Your task to perform on an android device: Open CNN.com Image 0: 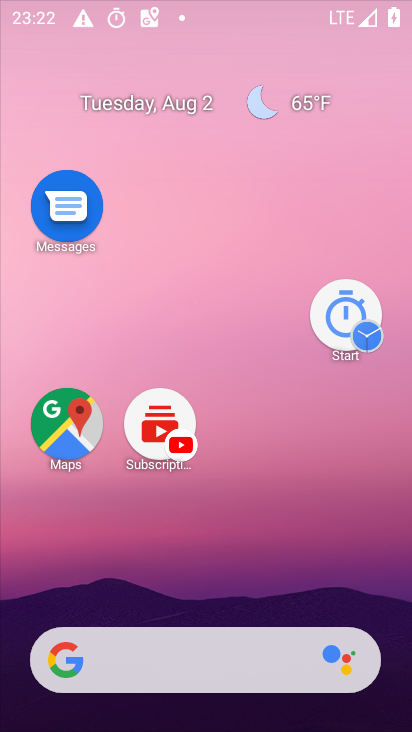
Step 0: drag from (219, 628) to (187, 250)
Your task to perform on an android device: Open CNN.com Image 1: 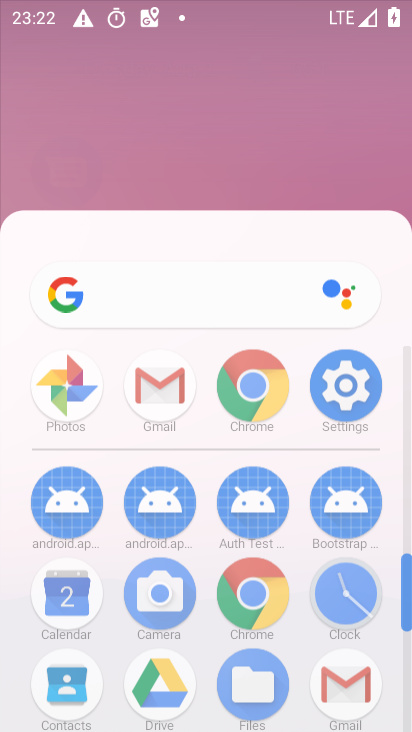
Step 1: drag from (227, 564) to (227, 304)
Your task to perform on an android device: Open CNN.com Image 2: 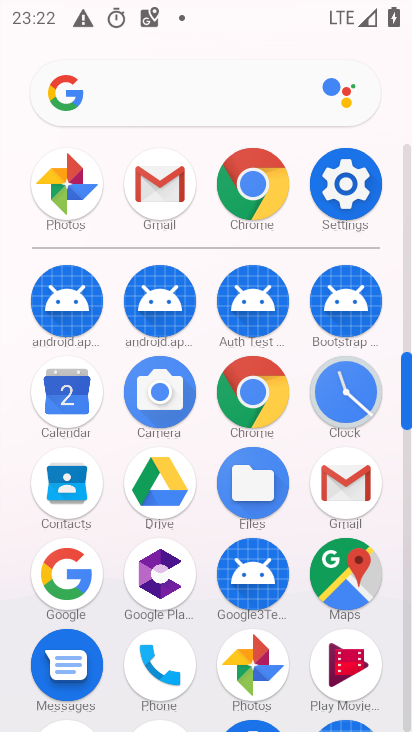
Step 2: drag from (245, 501) to (234, 370)
Your task to perform on an android device: Open CNN.com Image 3: 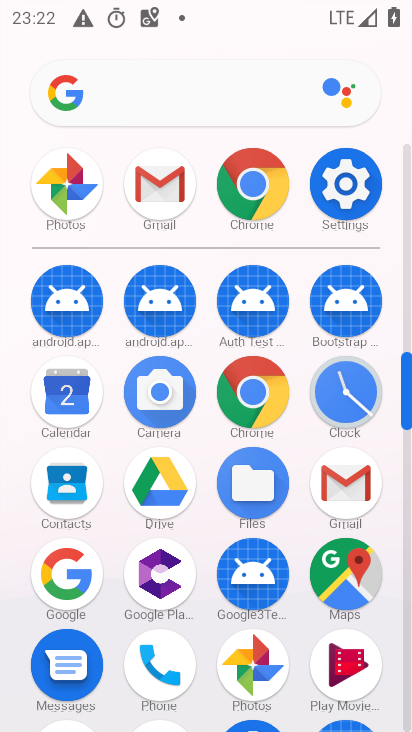
Step 3: click (256, 179)
Your task to perform on an android device: Open CNN.com Image 4: 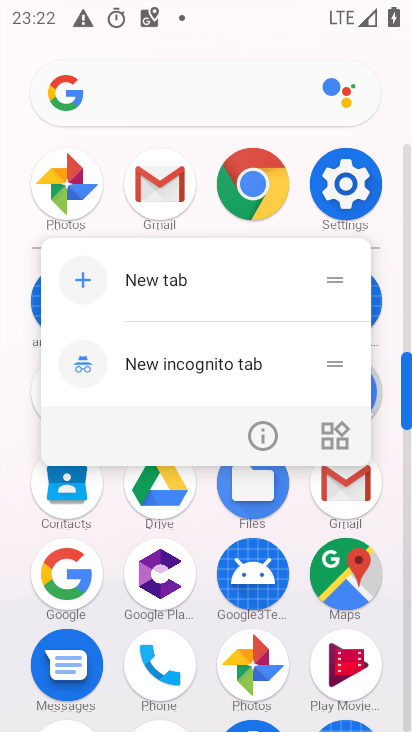
Step 4: click (254, 176)
Your task to perform on an android device: Open CNN.com Image 5: 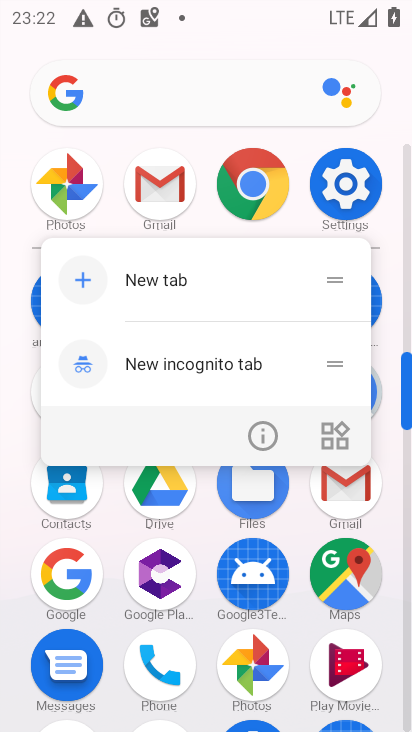
Step 5: click (257, 179)
Your task to perform on an android device: Open CNN.com Image 6: 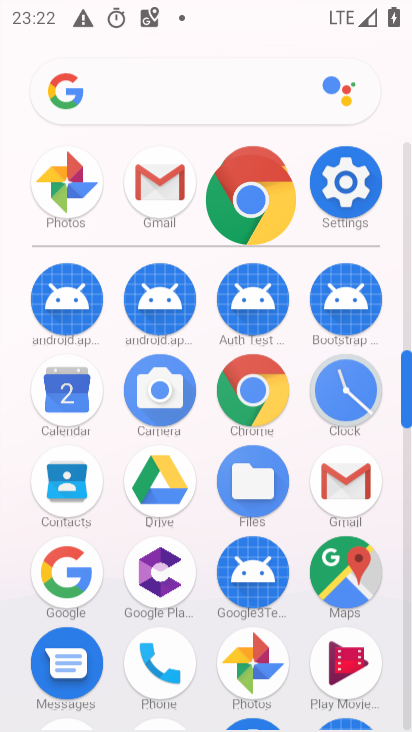
Step 6: click (259, 181)
Your task to perform on an android device: Open CNN.com Image 7: 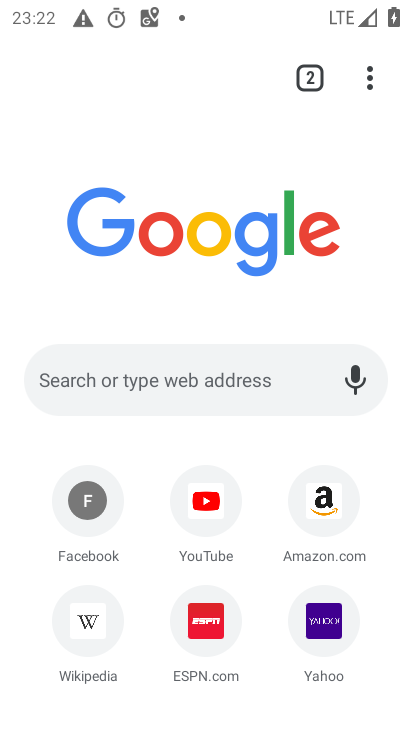
Step 7: click (261, 184)
Your task to perform on an android device: Open CNN.com Image 8: 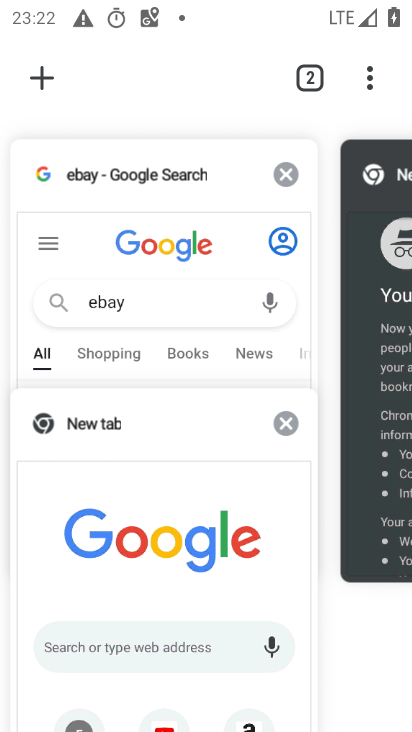
Step 8: press back button
Your task to perform on an android device: Open CNN.com Image 9: 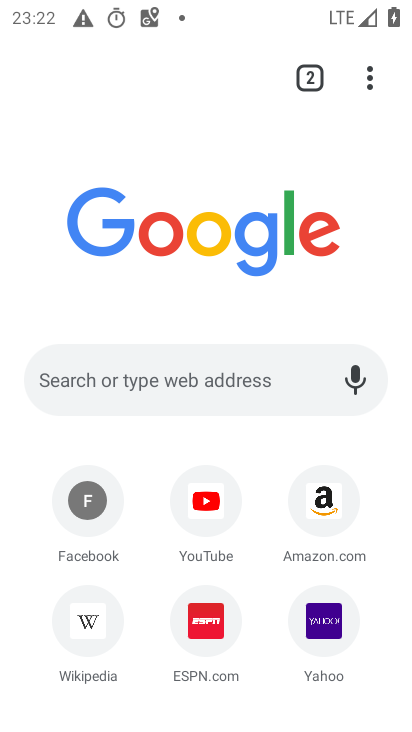
Step 9: click (106, 372)
Your task to perform on an android device: Open CNN.com Image 10: 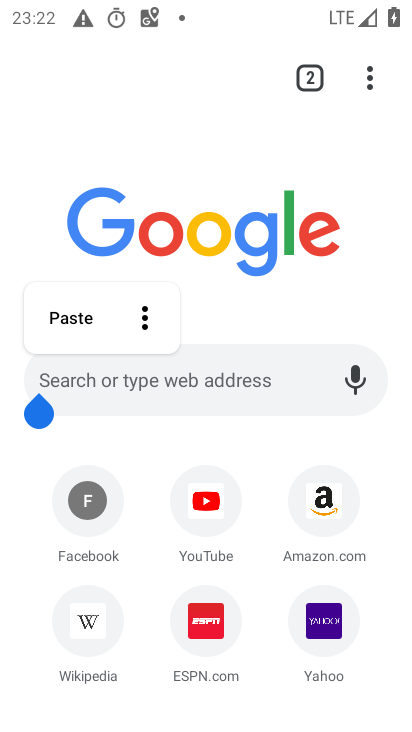
Step 10: click (87, 380)
Your task to perform on an android device: Open CNN.com Image 11: 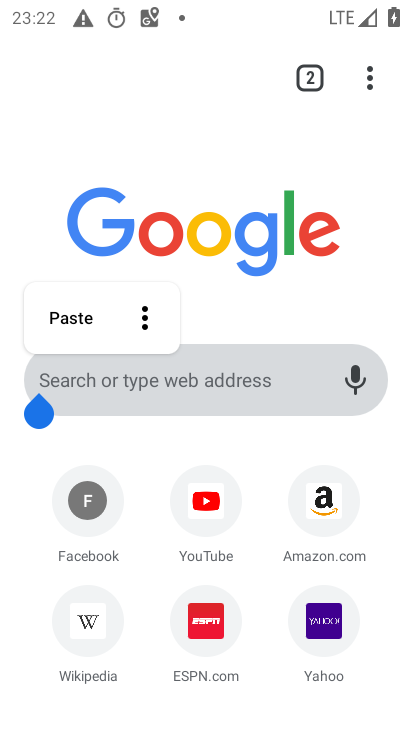
Step 11: click (92, 377)
Your task to perform on an android device: Open CNN.com Image 12: 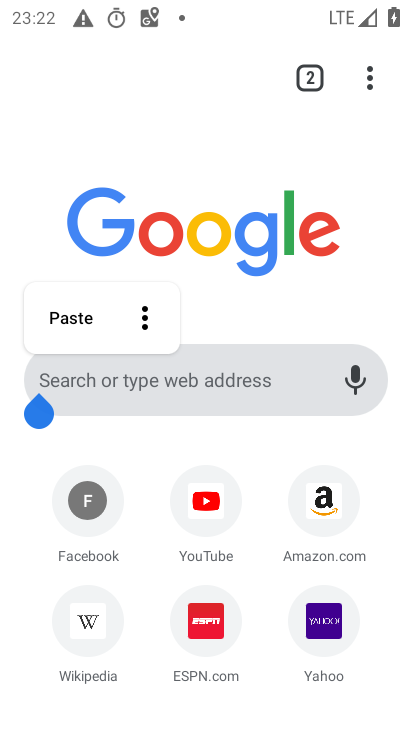
Step 12: click (96, 377)
Your task to perform on an android device: Open CNN.com Image 13: 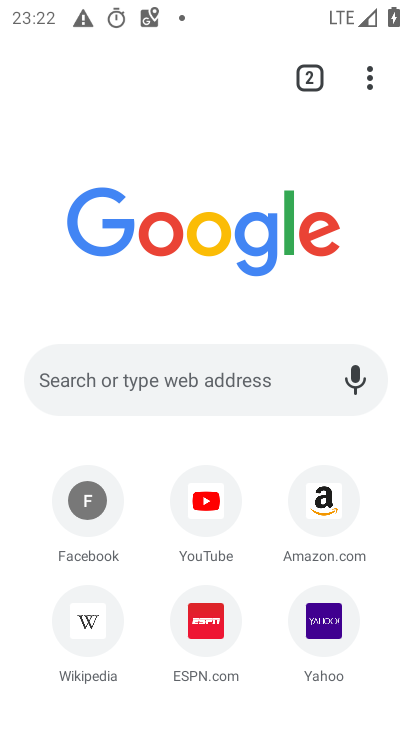
Step 13: click (89, 397)
Your task to perform on an android device: Open CNN.com Image 14: 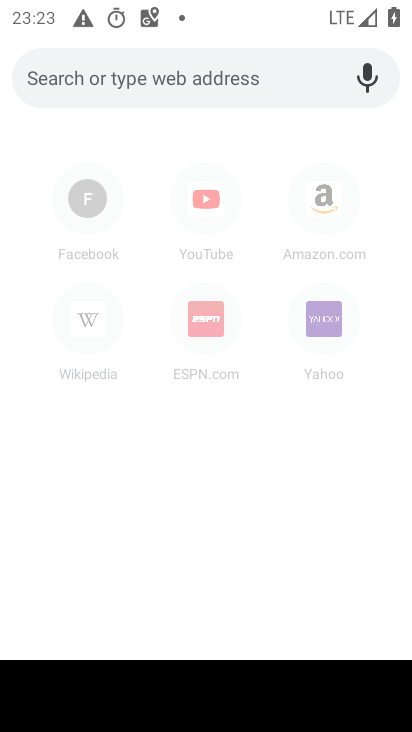
Step 14: type "CNN.com"
Your task to perform on an android device: Open CNN.com Image 15: 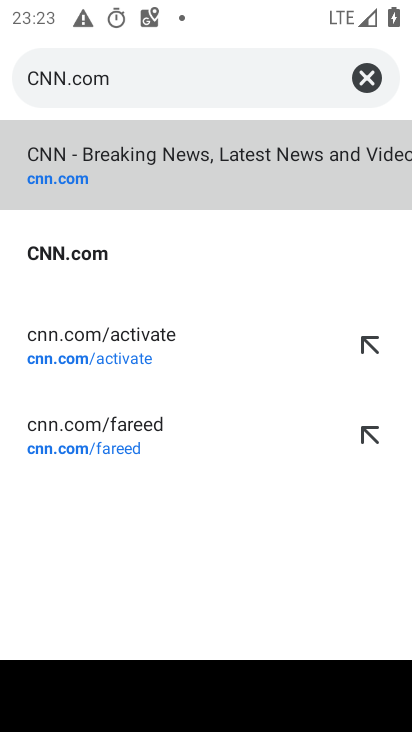
Step 15: click (59, 165)
Your task to perform on an android device: Open CNN.com Image 16: 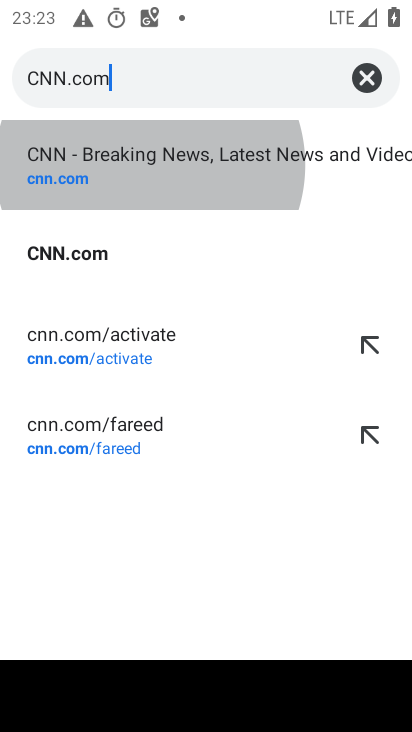
Step 16: click (61, 165)
Your task to perform on an android device: Open CNN.com Image 17: 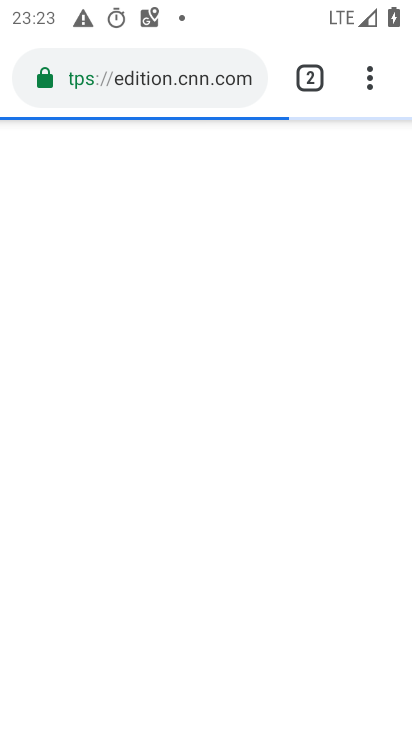
Step 17: task complete